Your task to perform on an android device: Open ESPN.com Image 0: 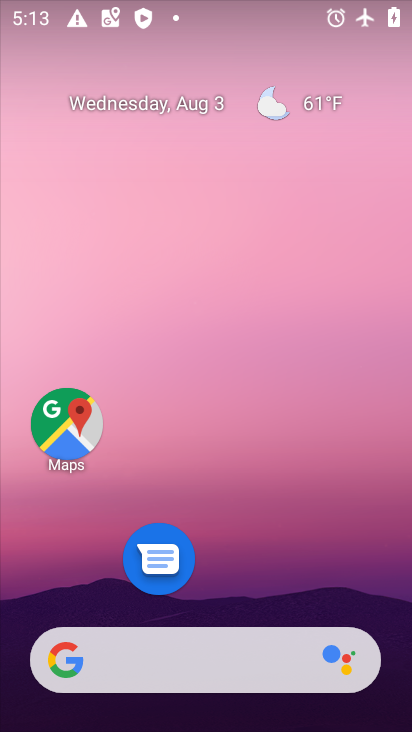
Step 0: drag from (217, 616) to (209, 219)
Your task to perform on an android device: Open ESPN.com Image 1: 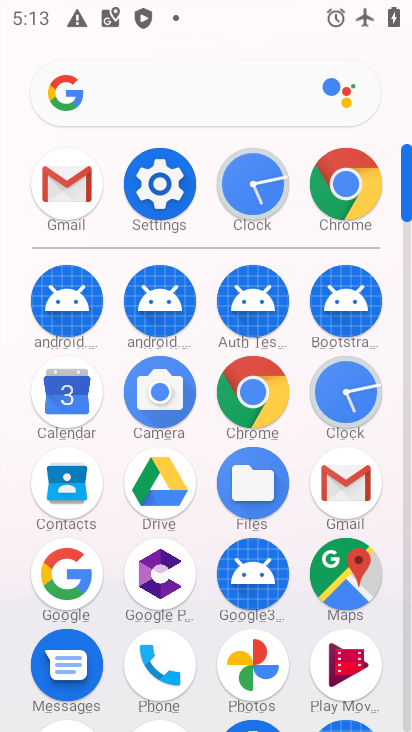
Step 1: click (343, 189)
Your task to perform on an android device: Open ESPN.com Image 2: 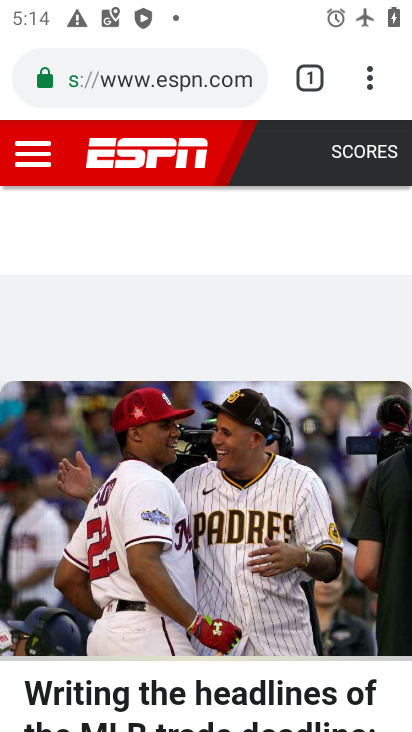
Step 2: task complete